Your task to perform on an android device: Open my contact list Image 0: 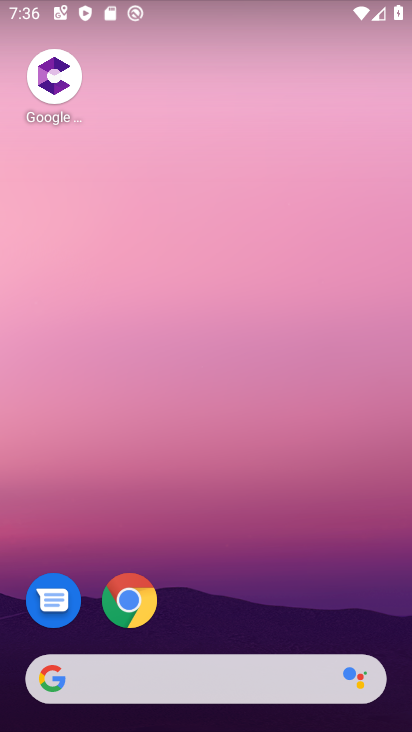
Step 0: drag from (247, 622) to (285, 190)
Your task to perform on an android device: Open my contact list Image 1: 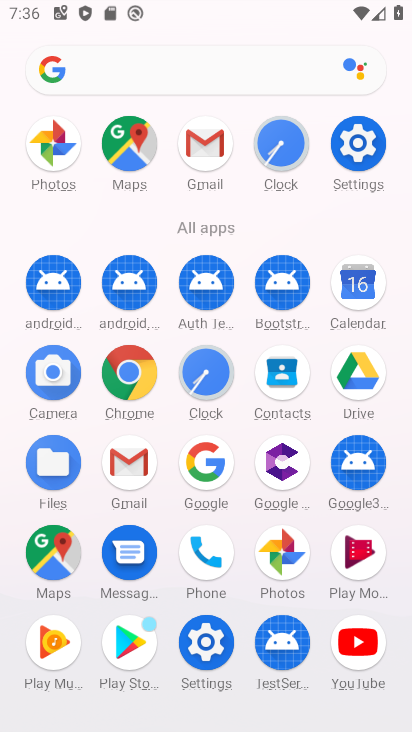
Step 1: click (284, 393)
Your task to perform on an android device: Open my contact list Image 2: 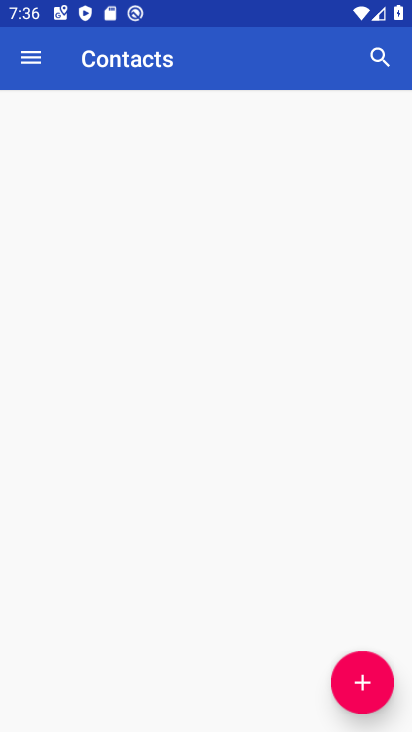
Step 2: click (23, 60)
Your task to perform on an android device: Open my contact list Image 3: 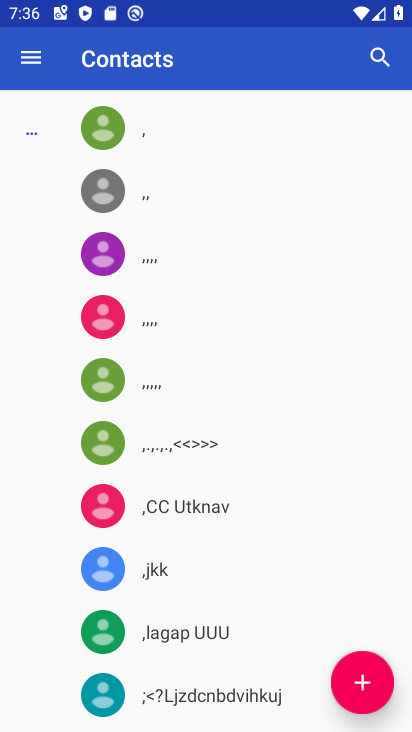
Step 3: task complete